Your task to perform on an android device: open sync settings in chrome Image 0: 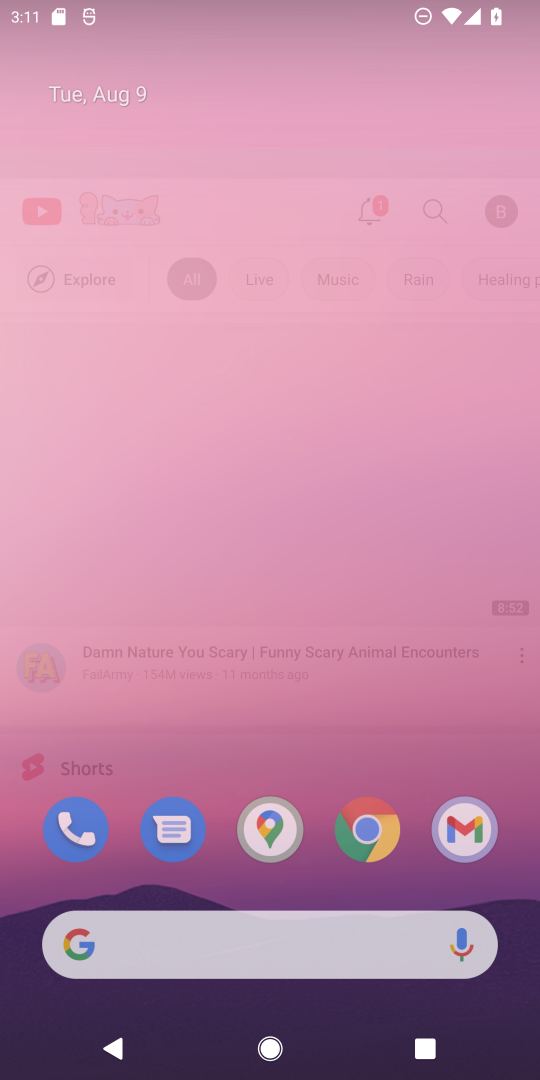
Step 0: press home button
Your task to perform on an android device: open sync settings in chrome Image 1: 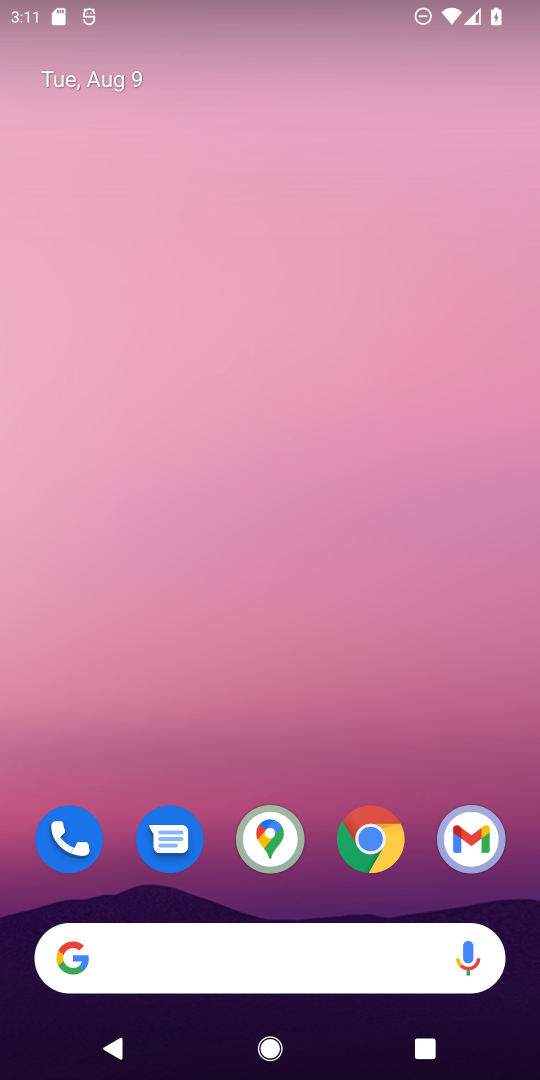
Step 1: click (365, 841)
Your task to perform on an android device: open sync settings in chrome Image 2: 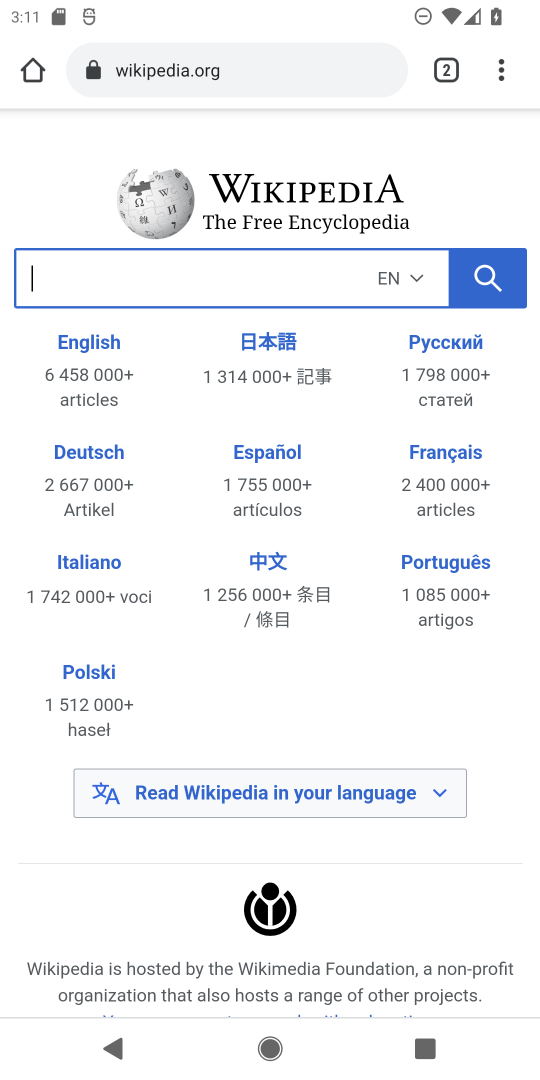
Step 2: drag from (504, 87) to (251, 911)
Your task to perform on an android device: open sync settings in chrome Image 3: 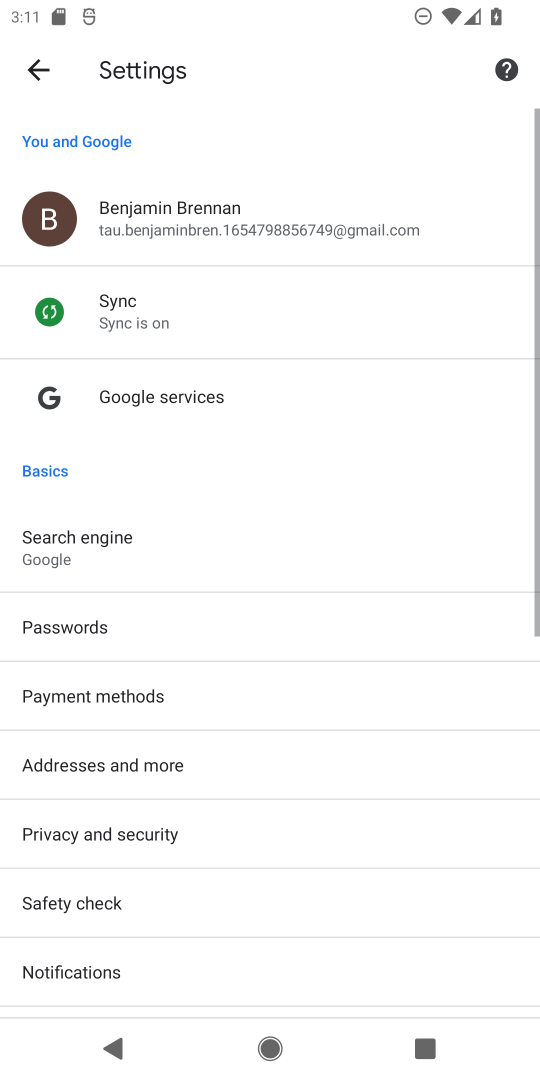
Step 3: click (148, 287)
Your task to perform on an android device: open sync settings in chrome Image 4: 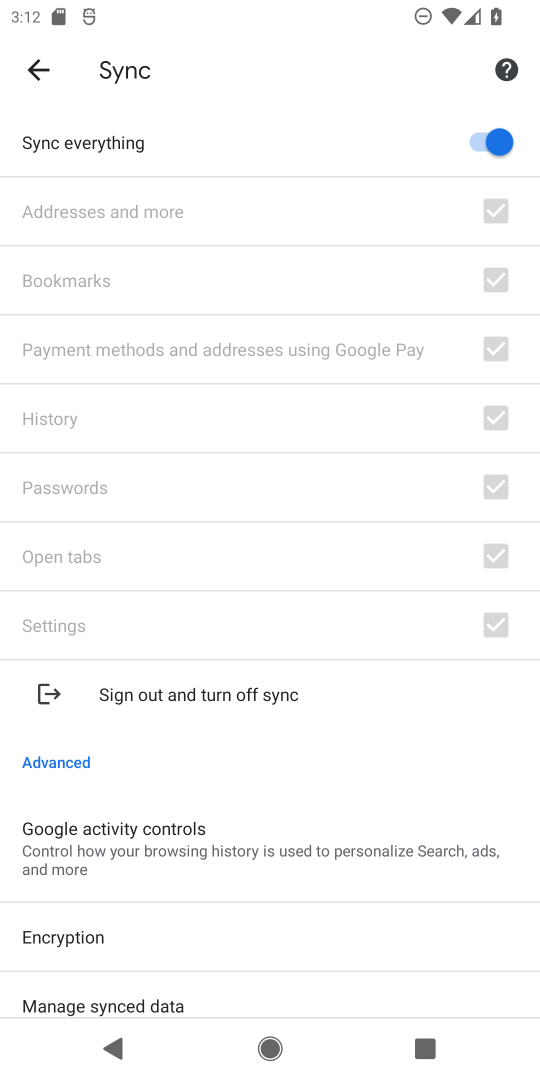
Step 4: task complete